Your task to perform on an android device: toggle airplane mode Image 0: 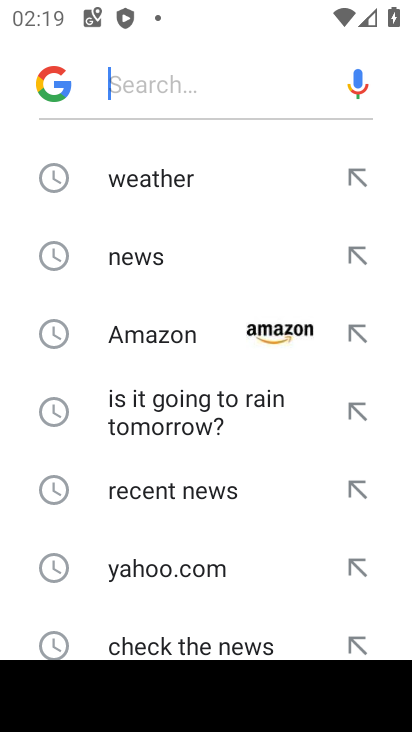
Step 0: press back button
Your task to perform on an android device: toggle airplane mode Image 1: 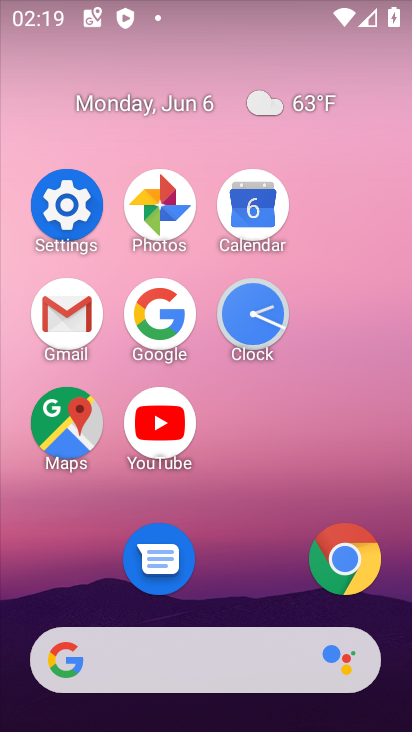
Step 1: click (62, 201)
Your task to perform on an android device: toggle airplane mode Image 2: 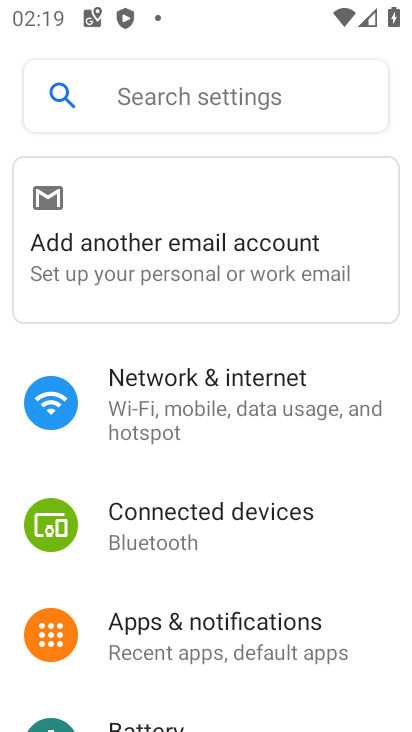
Step 2: click (250, 423)
Your task to perform on an android device: toggle airplane mode Image 3: 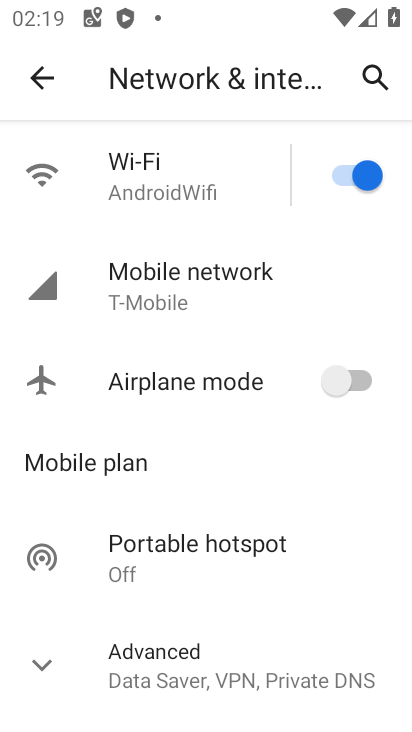
Step 3: click (344, 371)
Your task to perform on an android device: toggle airplane mode Image 4: 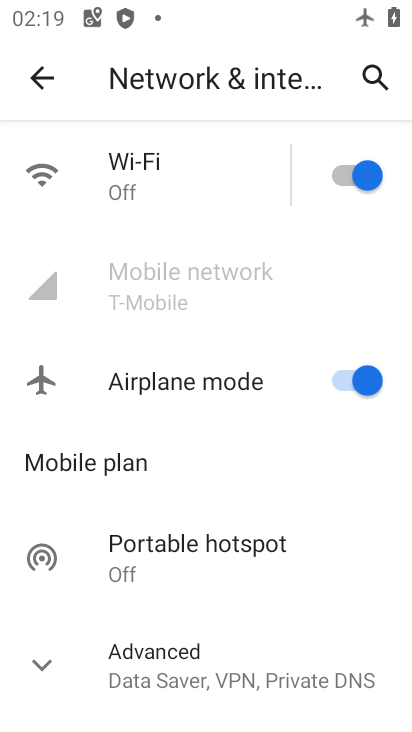
Step 4: task complete